Your task to perform on an android device: Go to privacy settings Image 0: 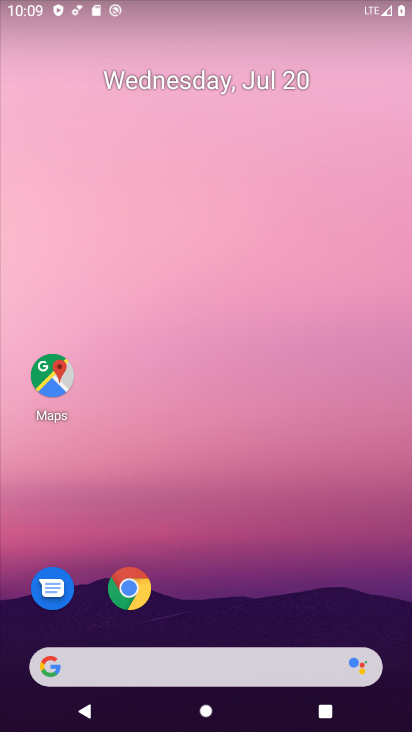
Step 0: drag from (214, 621) to (219, 77)
Your task to perform on an android device: Go to privacy settings Image 1: 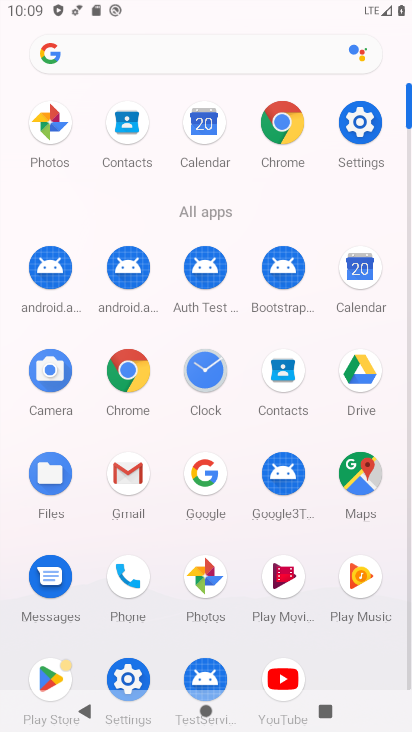
Step 1: click (130, 677)
Your task to perform on an android device: Go to privacy settings Image 2: 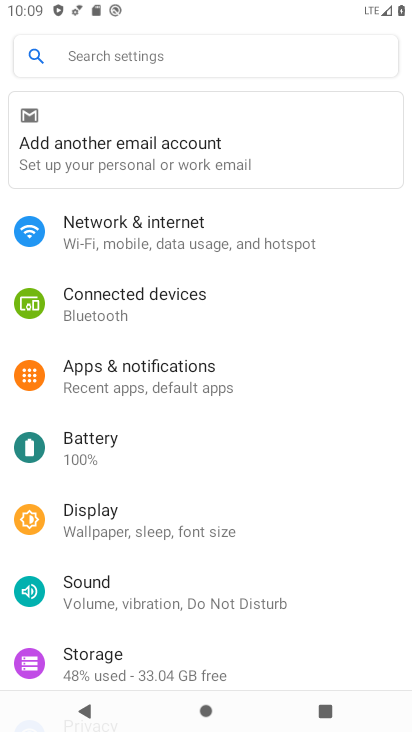
Step 2: drag from (147, 620) to (158, 395)
Your task to perform on an android device: Go to privacy settings Image 3: 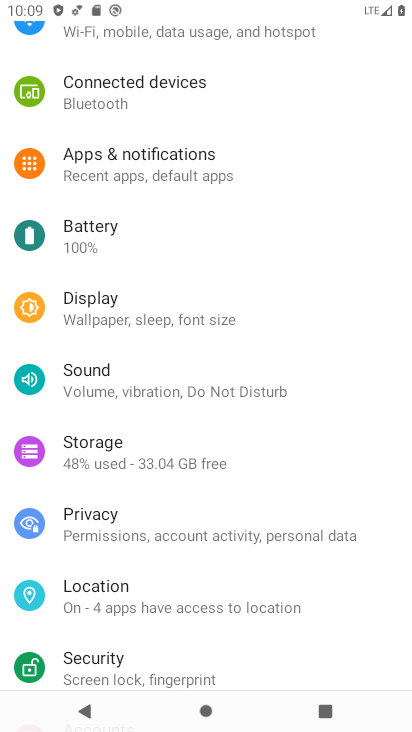
Step 3: click (108, 525)
Your task to perform on an android device: Go to privacy settings Image 4: 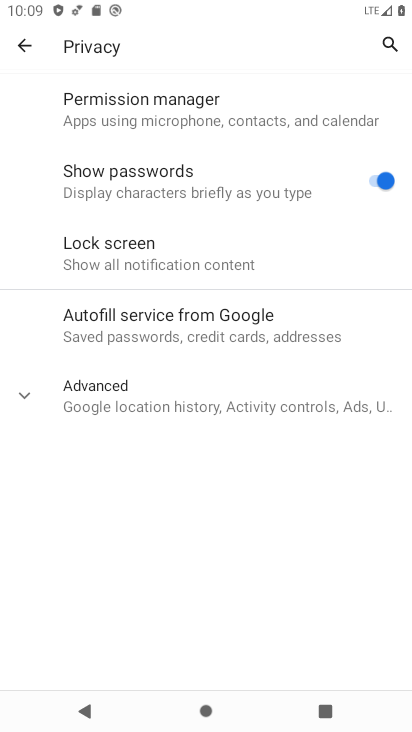
Step 4: task complete